Your task to perform on an android device: Open Wikipedia Image 0: 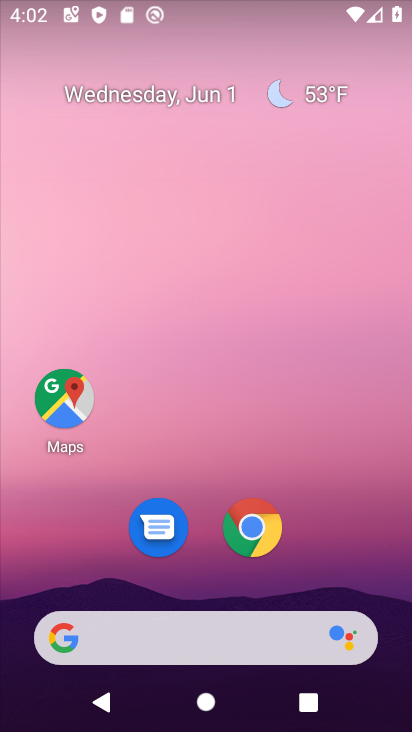
Step 0: click (255, 535)
Your task to perform on an android device: Open Wikipedia Image 1: 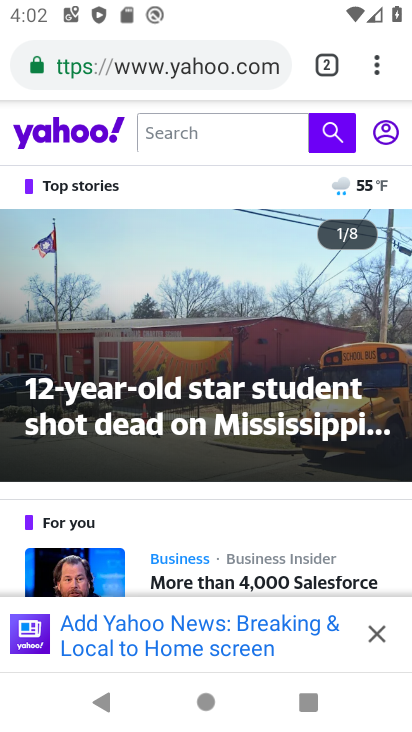
Step 1: click (228, 64)
Your task to perform on an android device: Open Wikipedia Image 2: 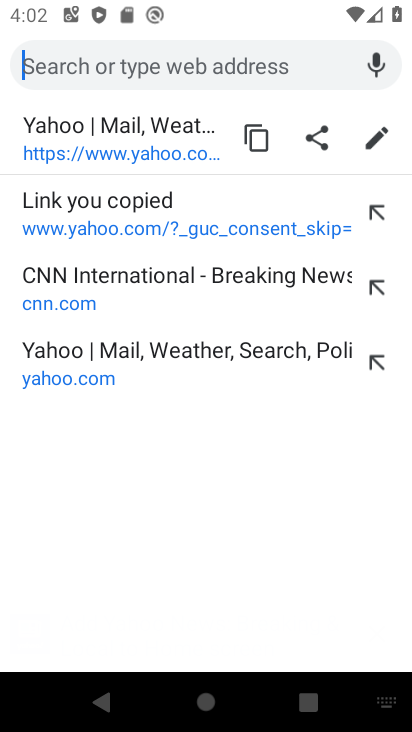
Step 2: type " Wikipedia"
Your task to perform on an android device: Open Wikipedia Image 3: 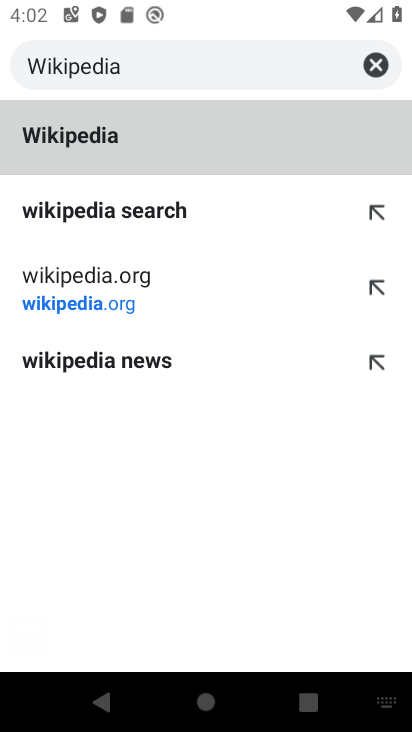
Step 3: click (107, 135)
Your task to perform on an android device: Open Wikipedia Image 4: 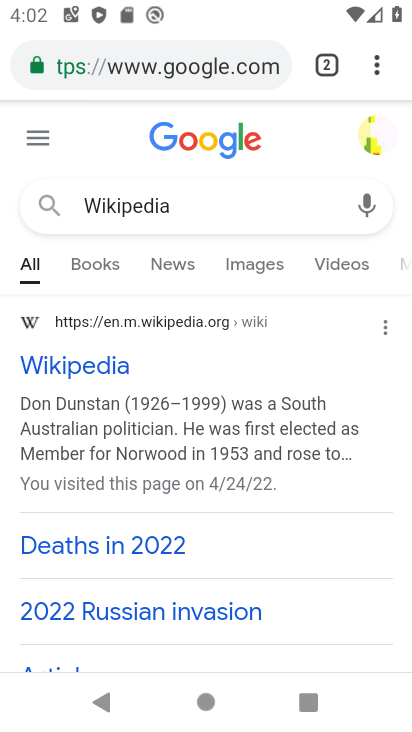
Step 4: click (34, 361)
Your task to perform on an android device: Open Wikipedia Image 5: 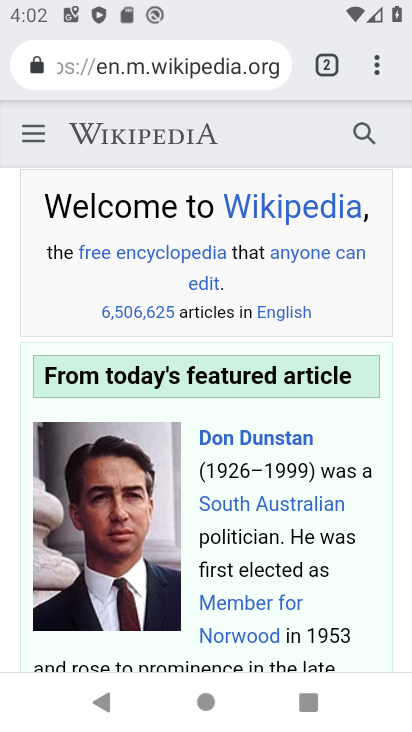
Step 5: task complete